Your task to perform on an android device: see creations saved in the google photos Image 0: 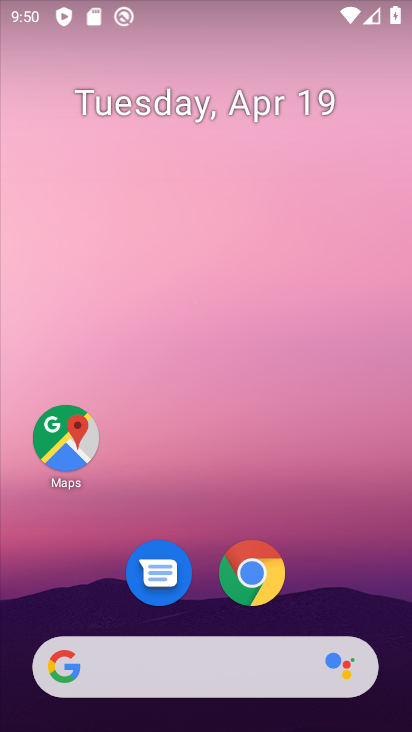
Step 0: click (369, 47)
Your task to perform on an android device: see creations saved in the google photos Image 1: 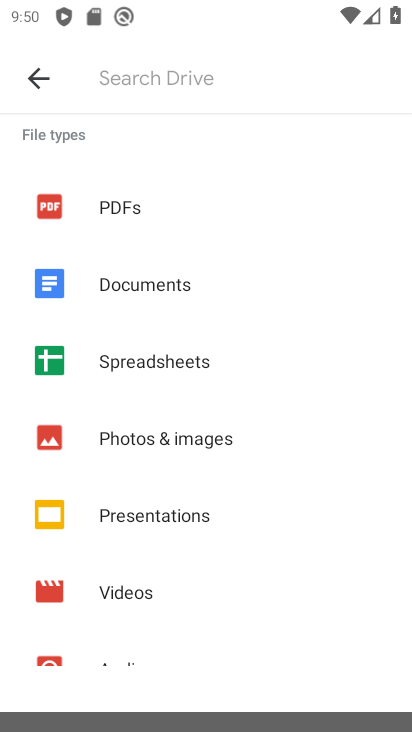
Step 1: press home button
Your task to perform on an android device: see creations saved in the google photos Image 2: 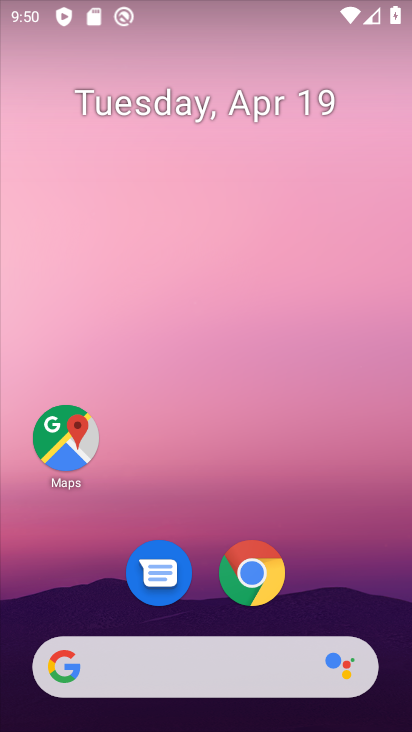
Step 2: drag from (334, 589) to (352, 102)
Your task to perform on an android device: see creations saved in the google photos Image 3: 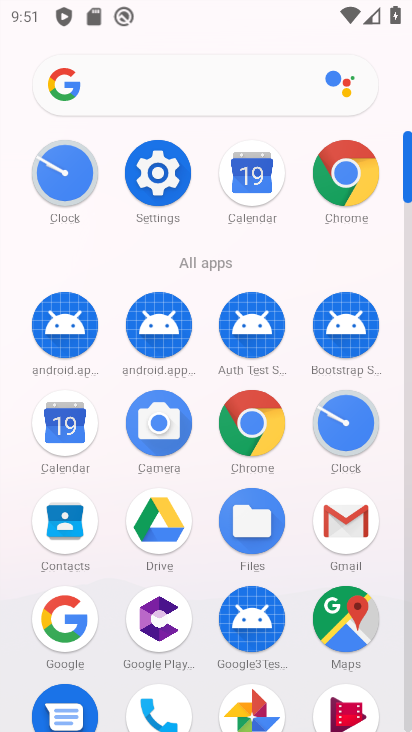
Step 3: drag from (389, 563) to (400, 267)
Your task to perform on an android device: see creations saved in the google photos Image 4: 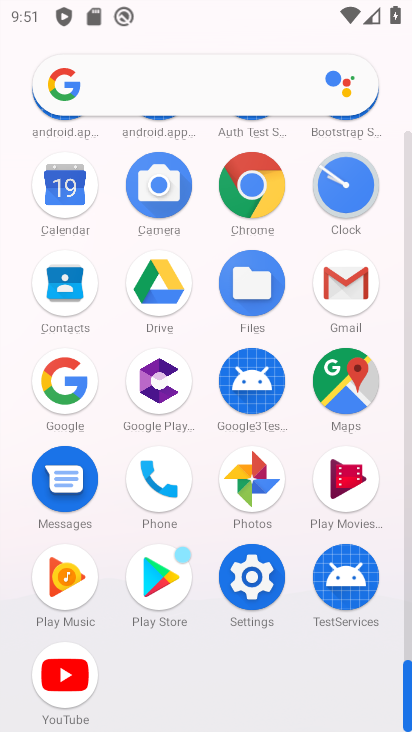
Step 4: click (259, 490)
Your task to perform on an android device: see creations saved in the google photos Image 5: 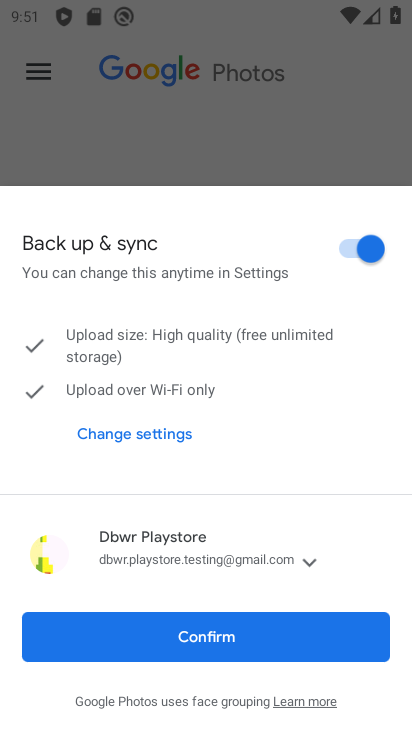
Step 5: click (304, 643)
Your task to perform on an android device: see creations saved in the google photos Image 6: 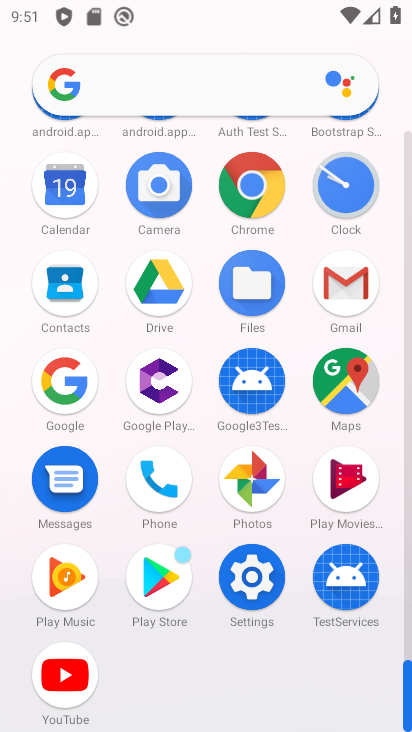
Step 6: click (255, 483)
Your task to perform on an android device: see creations saved in the google photos Image 7: 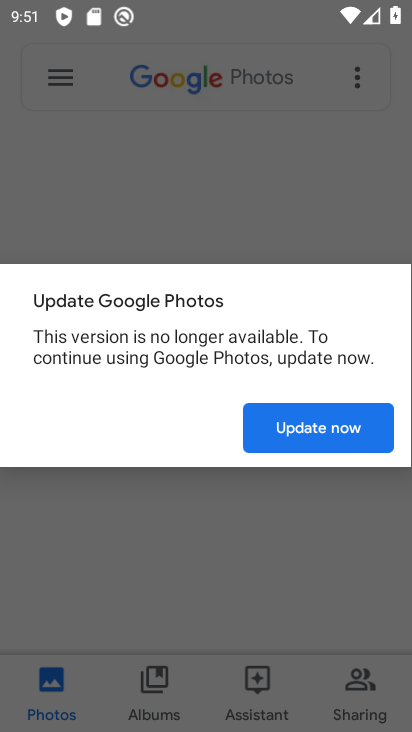
Step 7: click (326, 421)
Your task to perform on an android device: see creations saved in the google photos Image 8: 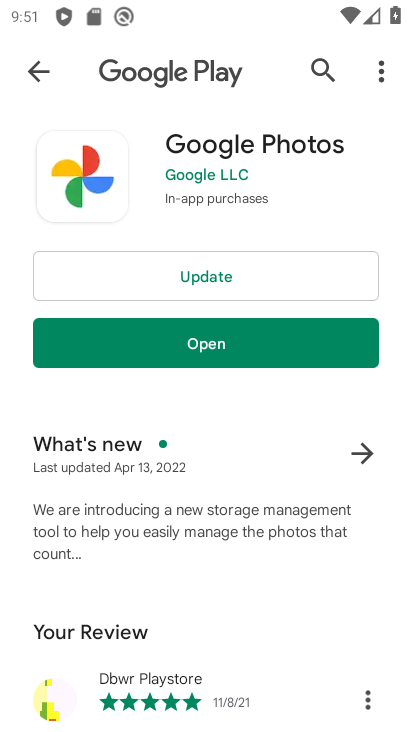
Step 8: click (224, 276)
Your task to perform on an android device: see creations saved in the google photos Image 9: 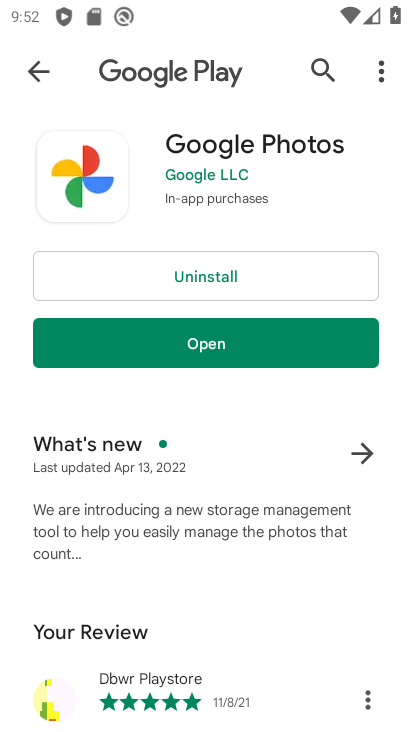
Step 9: click (316, 337)
Your task to perform on an android device: see creations saved in the google photos Image 10: 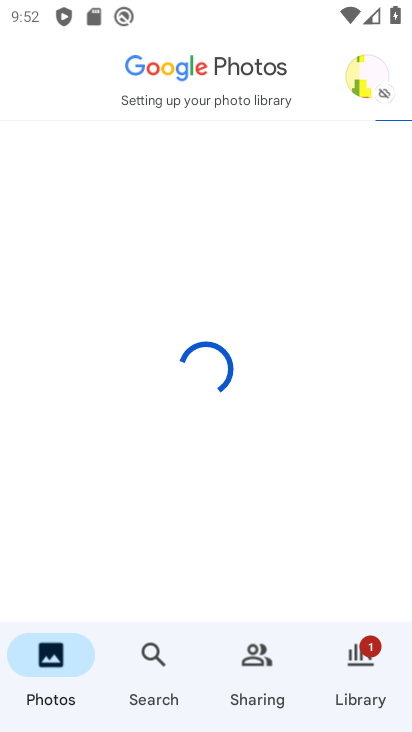
Step 10: click (152, 664)
Your task to perform on an android device: see creations saved in the google photos Image 11: 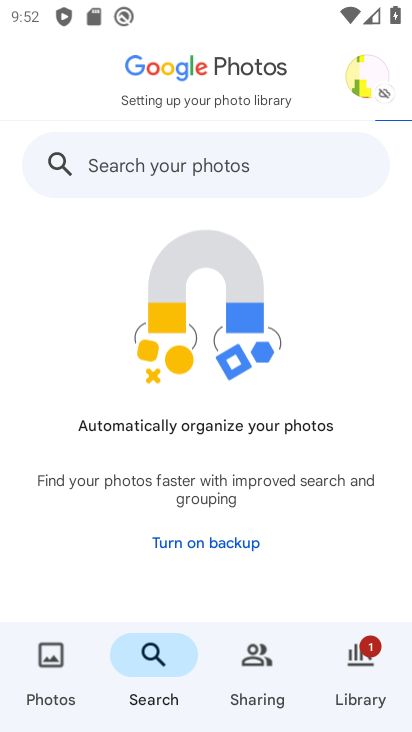
Step 11: drag from (308, 534) to (331, 205)
Your task to perform on an android device: see creations saved in the google photos Image 12: 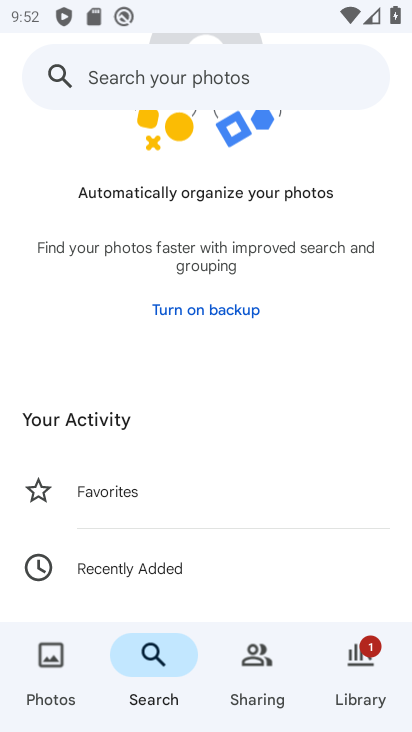
Step 12: drag from (252, 515) to (271, 183)
Your task to perform on an android device: see creations saved in the google photos Image 13: 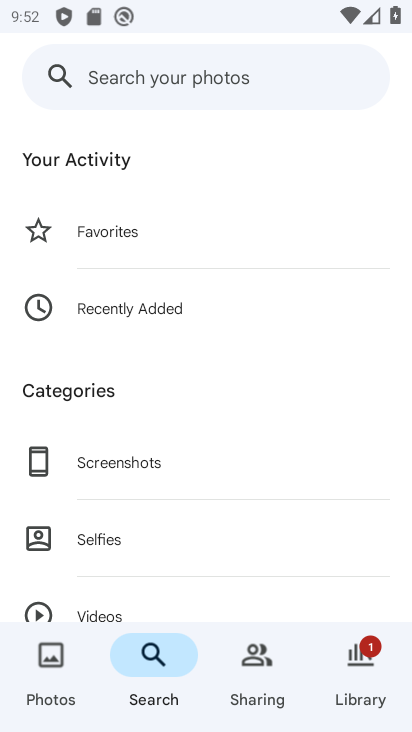
Step 13: drag from (252, 524) to (282, 218)
Your task to perform on an android device: see creations saved in the google photos Image 14: 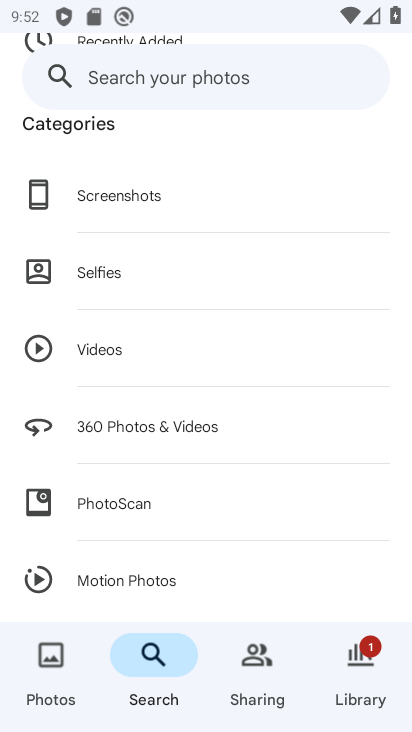
Step 14: drag from (280, 559) to (310, 247)
Your task to perform on an android device: see creations saved in the google photos Image 15: 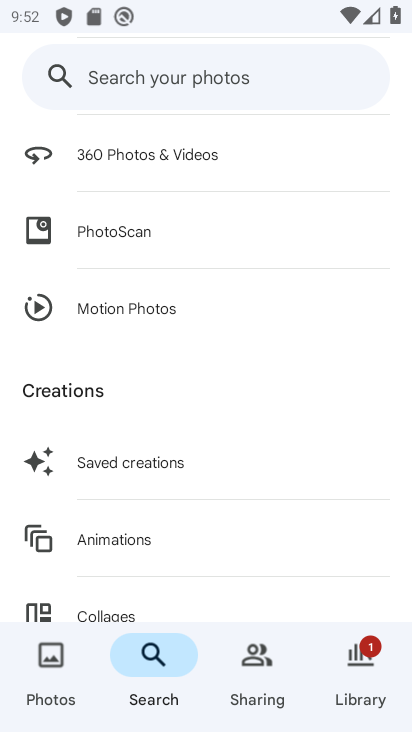
Step 15: click (173, 463)
Your task to perform on an android device: see creations saved in the google photos Image 16: 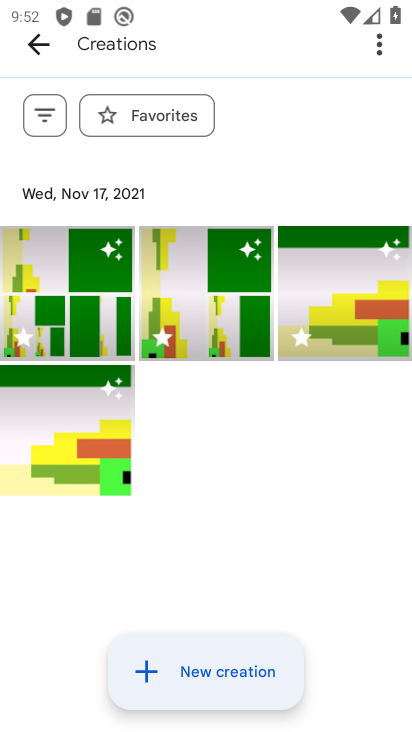
Step 16: task complete